Your task to perform on an android device: allow notifications from all sites in the chrome app Image 0: 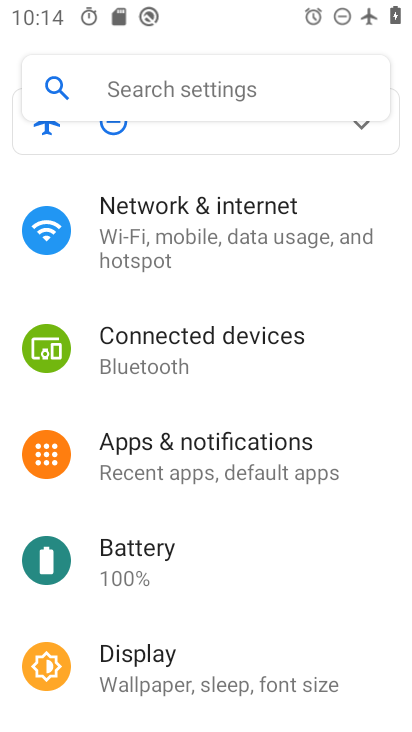
Step 0: press home button
Your task to perform on an android device: allow notifications from all sites in the chrome app Image 1: 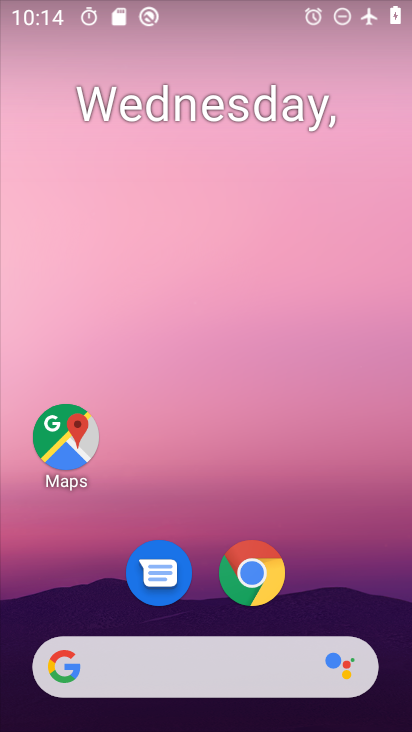
Step 1: click (277, 579)
Your task to perform on an android device: allow notifications from all sites in the chrome app Image 2: 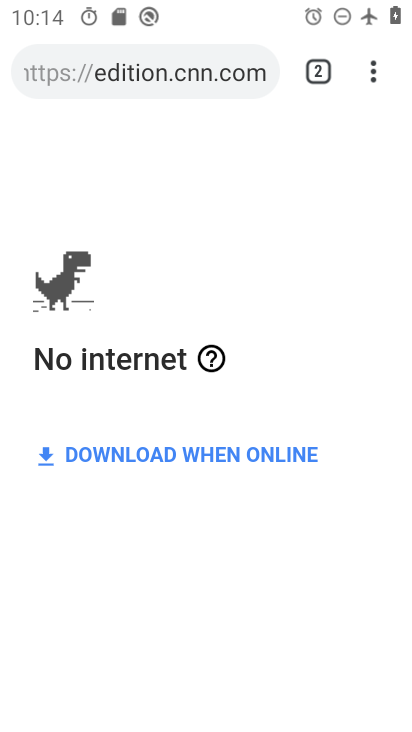
Step 2: click (375, 80)
Your task to perform on an android device: allow notifications from all sites in the chrome app Image 3: 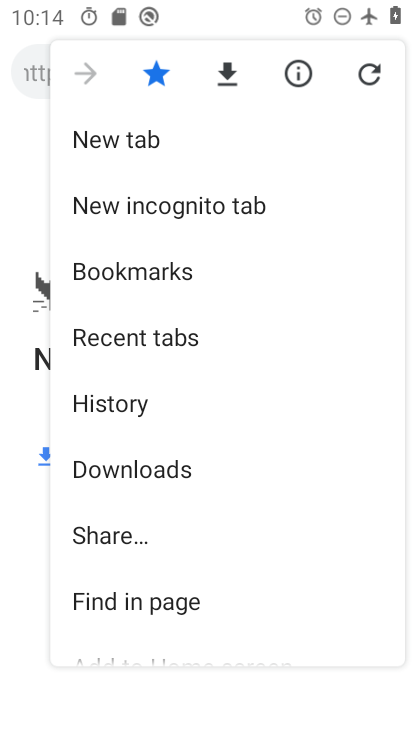
Step 3: drag from (281, 593) to (350, 118)
Your task to perform on an android device: allow notifications from all sites in the chrome app Image 4: 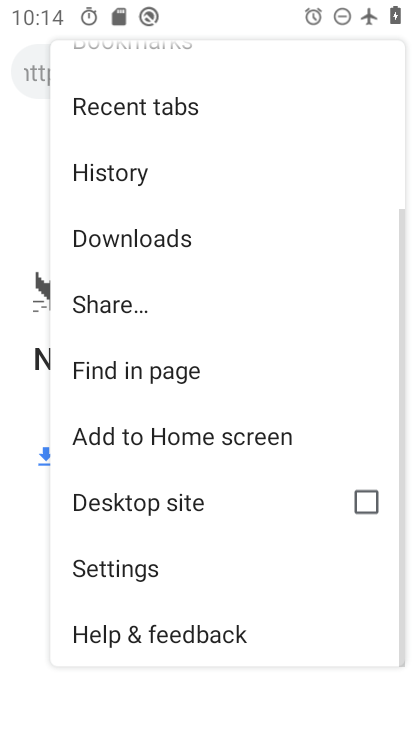
Step 4: click (203, 581)
Your task to perform on an android device: allow notifications from all sites in the chrome app Image 5: 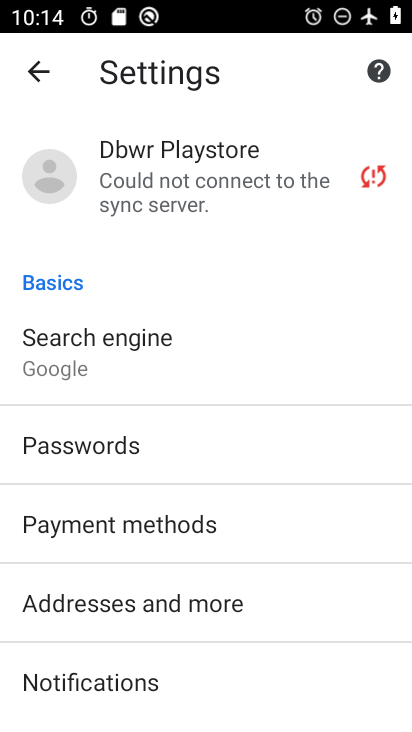
Step 5: drag from (197, 574) to (280, 217)
Your task to perform on an android device: allow notifications from all sites in the chrome app Image 6: 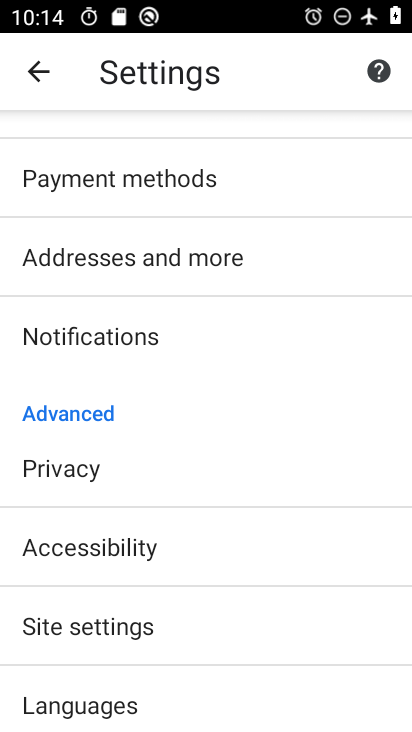
Step 6: click (219, 337)
Your task to perform on an android device: allow notifications from all sites in the chrome app Image 7: 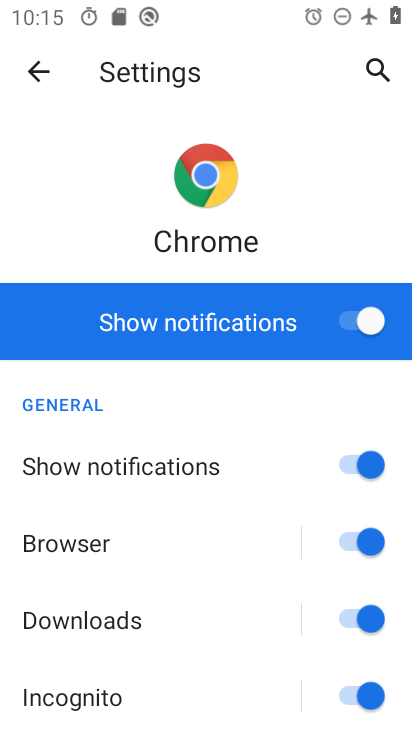
Step 7: task complete